Your task to perform on an android device: What is the recent news? Image 0: 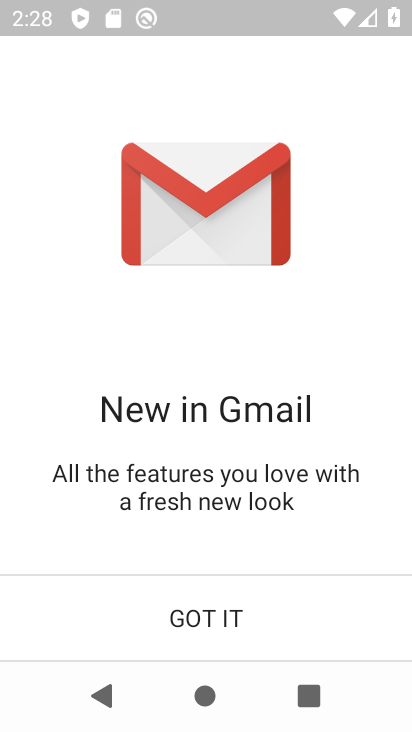
Step 0: press home button
Your task to perform on an android device: What is the recent news? Image 1: 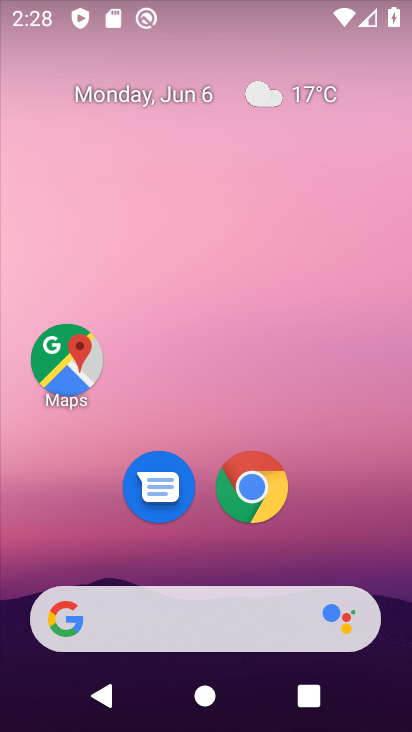
Step 1: task complete